Your task to perform on an android device: Open display settings Image 0: 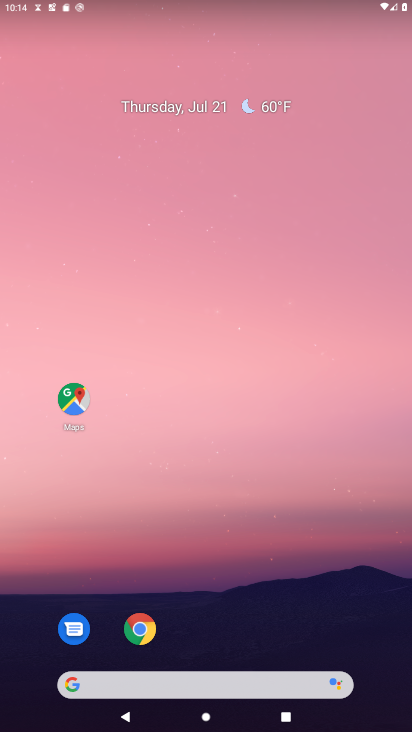
Step 0: drag from (217, 632) to (219, 189)
Your task to perform on an android device: Open display settings Image 1: 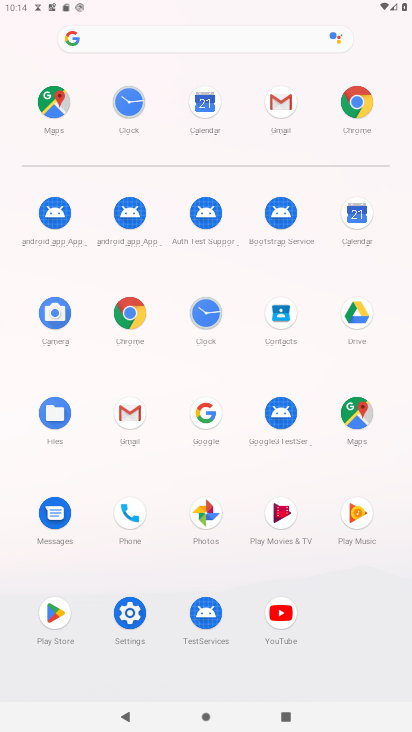
Step 1: click (131, 616)
Your task to perform on an android device: Open display settings Image 2: 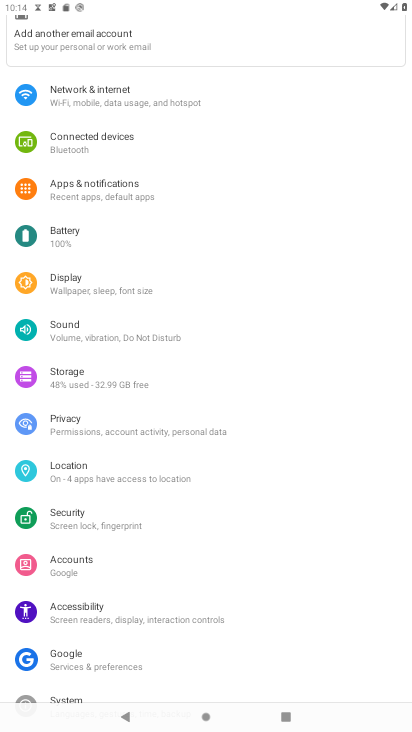
Step 2: click (68, 285)
Your task to perform on an android device: Open display settings Image 3: 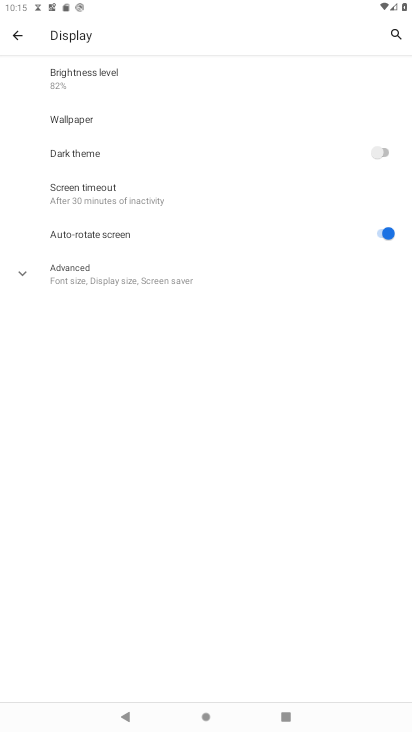
Step 3: task complete